Your task to perform on an android device: Open calendar and show me the third week of next month Image 0: 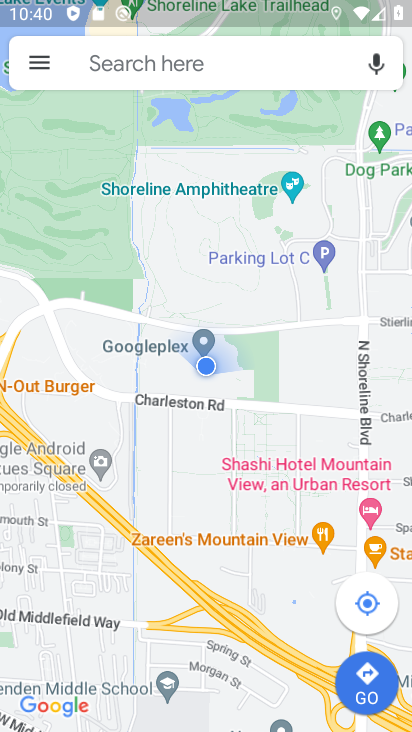
Step 0: press home button
Your task to perform on an android device: Open calendar and show me the third week of next month Image 1: 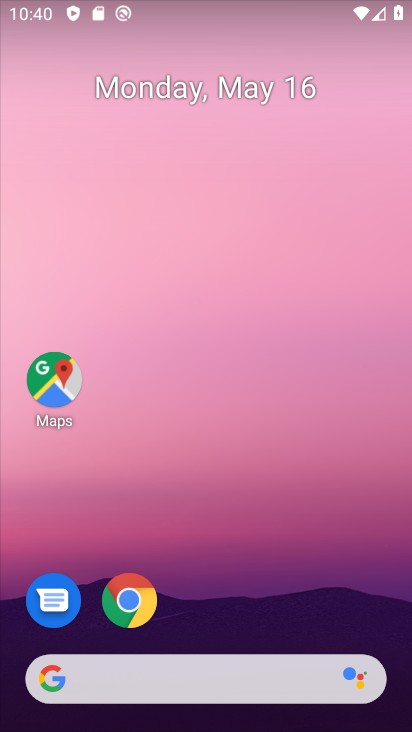
Step 1: drag from (194, 601) to (169, 246)
Your task to perform on an android device: Open calendar and show me the third week of next month Image 2: 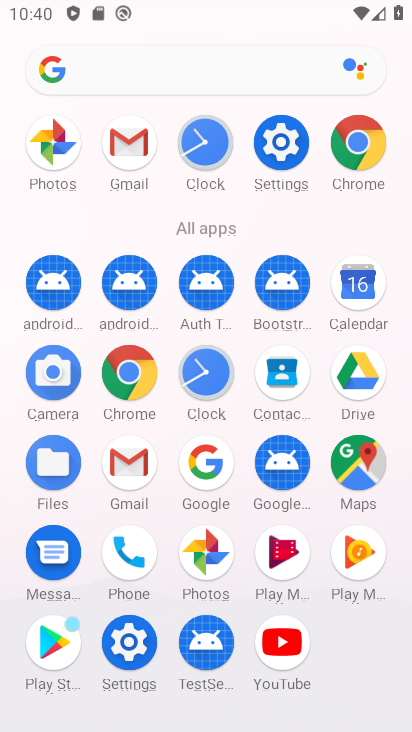
Step 2: click (352, 286)
Your task to perform on an android device: Open calendar and show me the third week of next month Image 3: 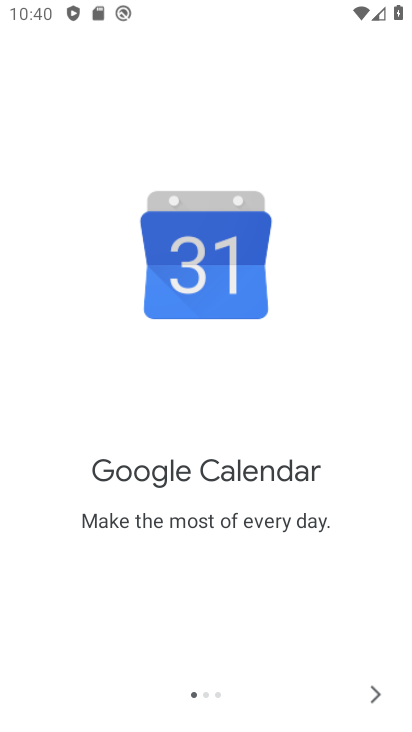
Step 3: click (381, 692)
Your task to perform on an android device: Open calendar and show me the third week of next month Image 4: 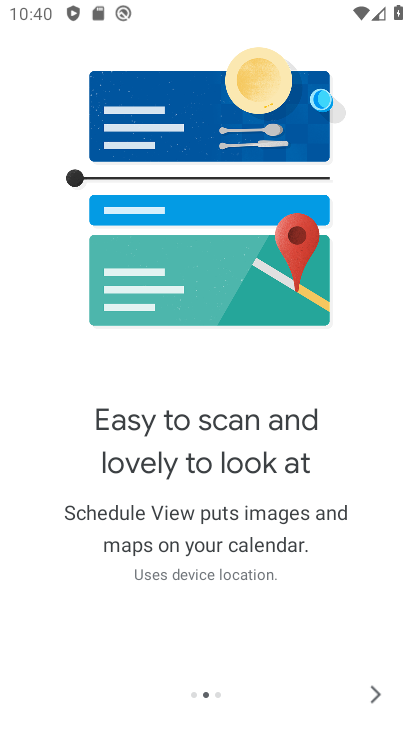
Step 4: click (378, 689)
Your task to perform on an android device: Open calendar and show me the third week of next month Image 5: 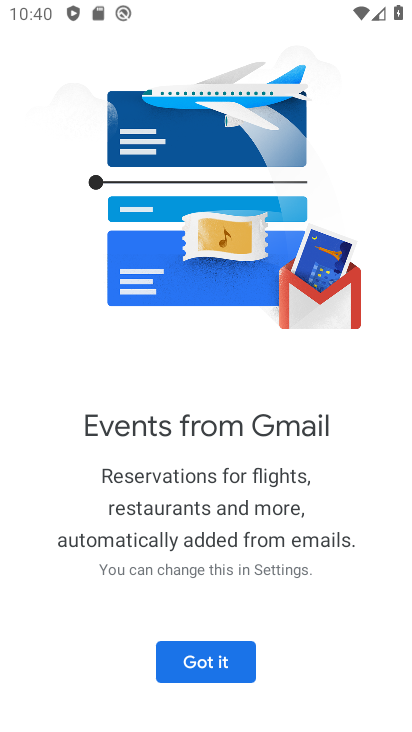
Step 5: click (210, 654)
Your task to perform on an android device: Open calendar and show me the third week of next month Image 6: 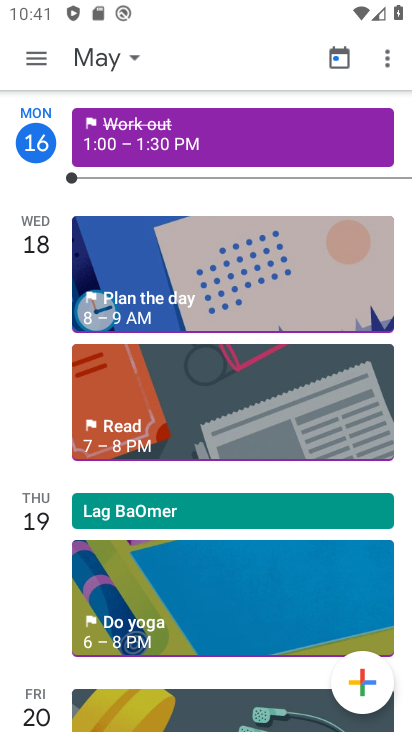
Step 6: click (112, 60)
Your task to perform on an android device: Open calendar and show me the third week of next month Image 7: 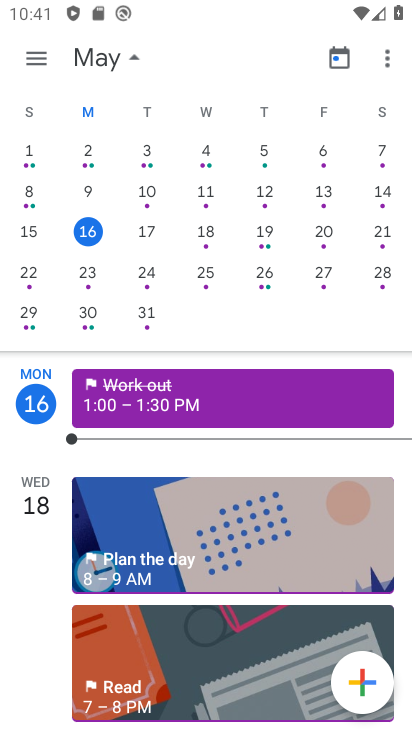
Step 7: drag from (405, 248) to (133, 221)
Your task to perform on an android device: Open calendar and show me the third week of next month Image 8: 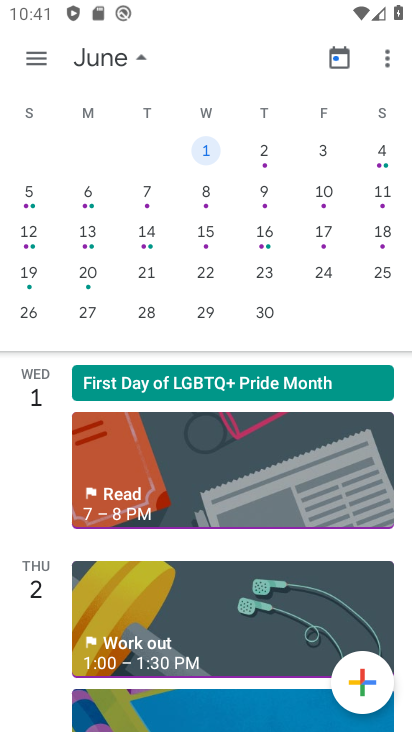
Step 8: click (184, 235)
Your task to perform on an android device: Open calendar and show me the third week of next month Image 9: 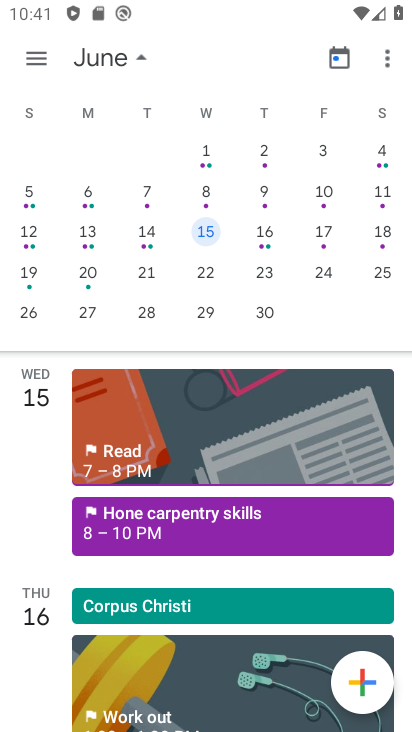
Step 9: click (41, 231)
Your task to perform on an android device: Open calendar and show me the third week of next month Image 10: 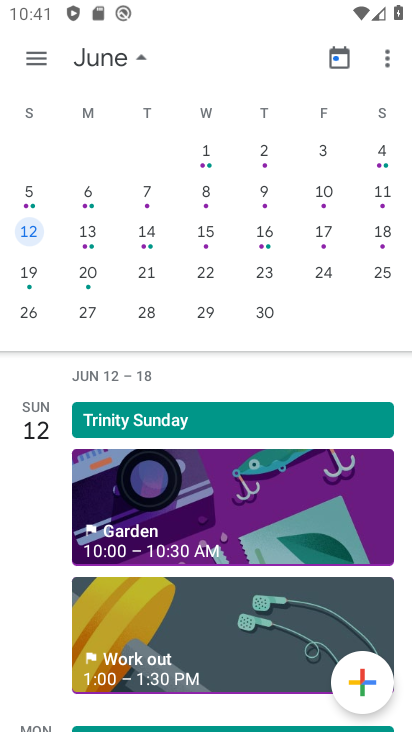
Step 10: click (69, 235)
Your task to perform on an android device: Open calendar and show me the third week of next month Image 11: 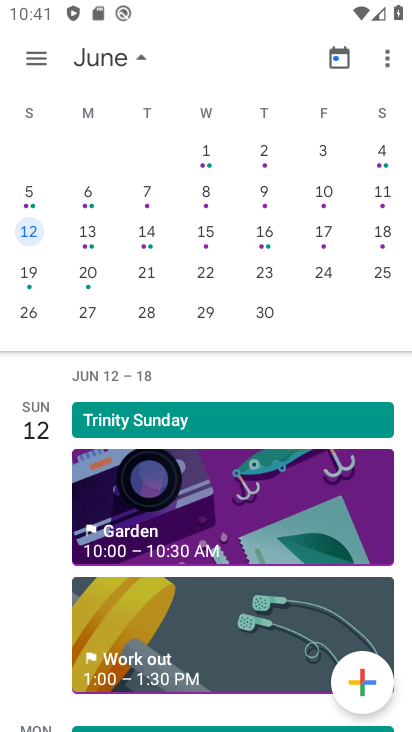
Step 11: click (148, 244)
Your task to perform on an android device: Open calendar and show me the third week of next month Image 12: 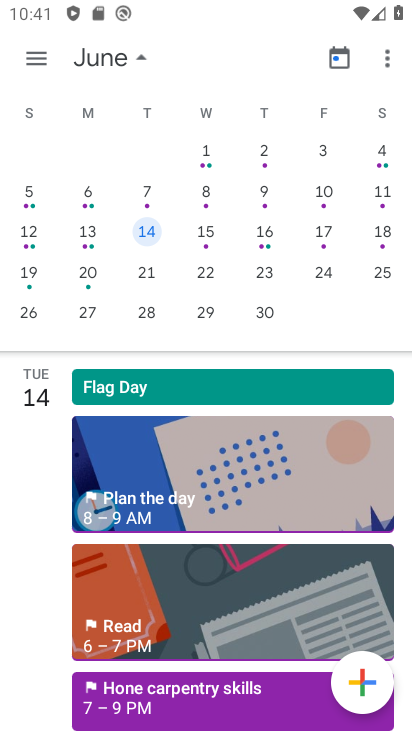
Step 12: click (91, 239)
Your task to perform on an android device: Open calendar and show me the third week of next month Image 13: 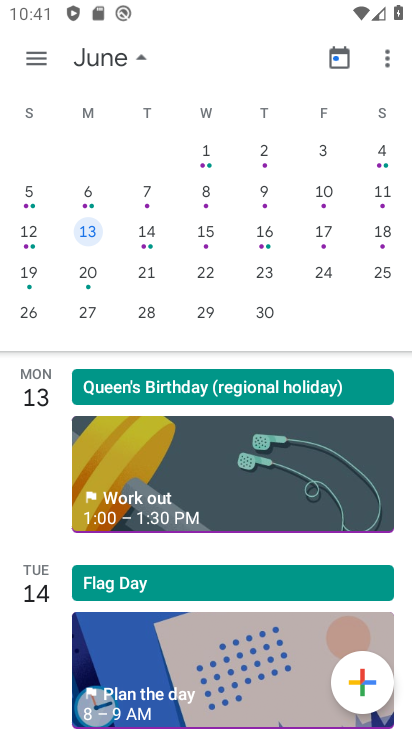
Step 13: click (266, 227)
Your task to perform on an android device: Open calendar and show me the third week of next month Image 14: 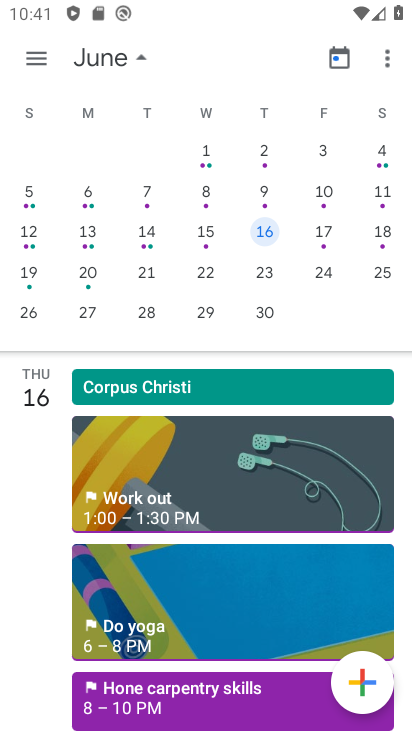
Step 14: click (317, 227)
Your task to perform on an android device: Open calendar and show me the third week of next month Image 15: 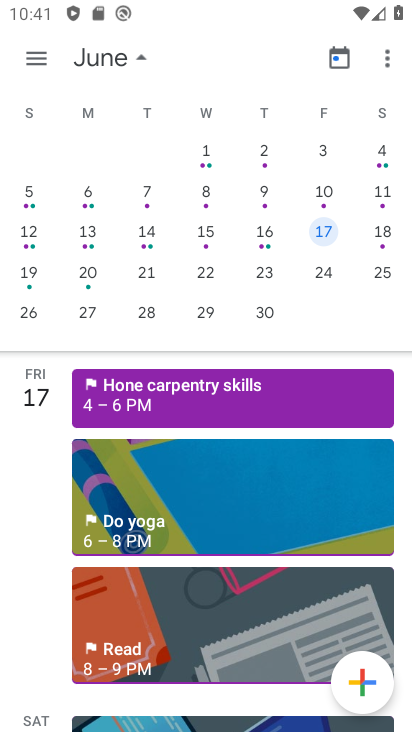
Step 15: click (393, 227)
Your task to perform on an android device: Open calendar and show me the third week of next month Image 16: 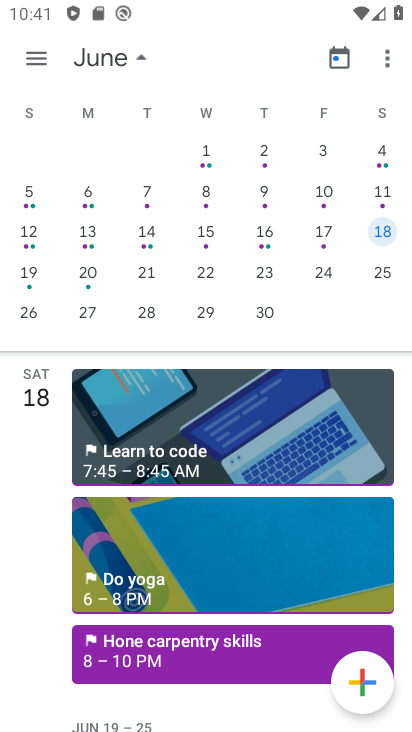
Step 16: task complete